Your task to perform on an android device: turn off translation in the chrome app Image 0: 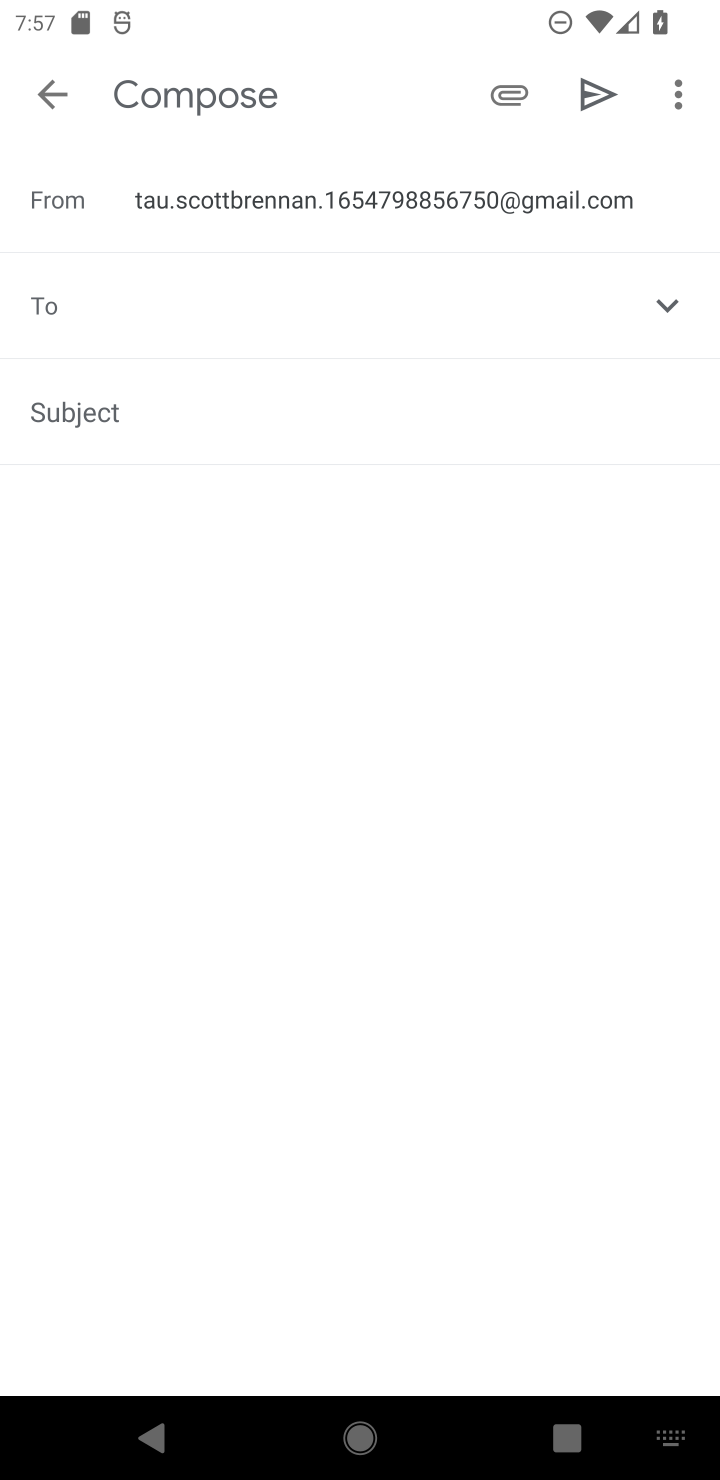
Step 0: press home button
Your task to perform on an android device: turn off translation in the chrome app Image 1: 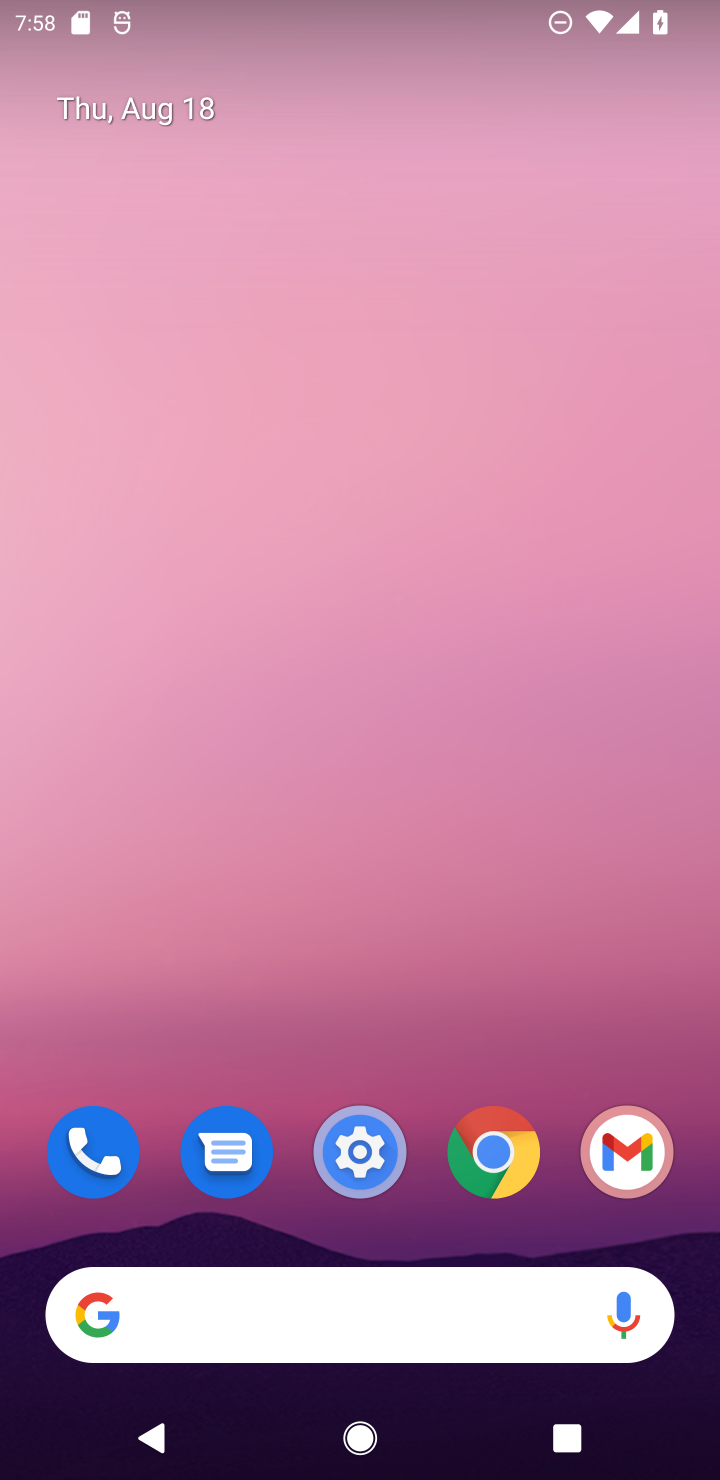
Step 1: press home button
Your task to perform on an android device: turn off translation in the chrome app Image 2: 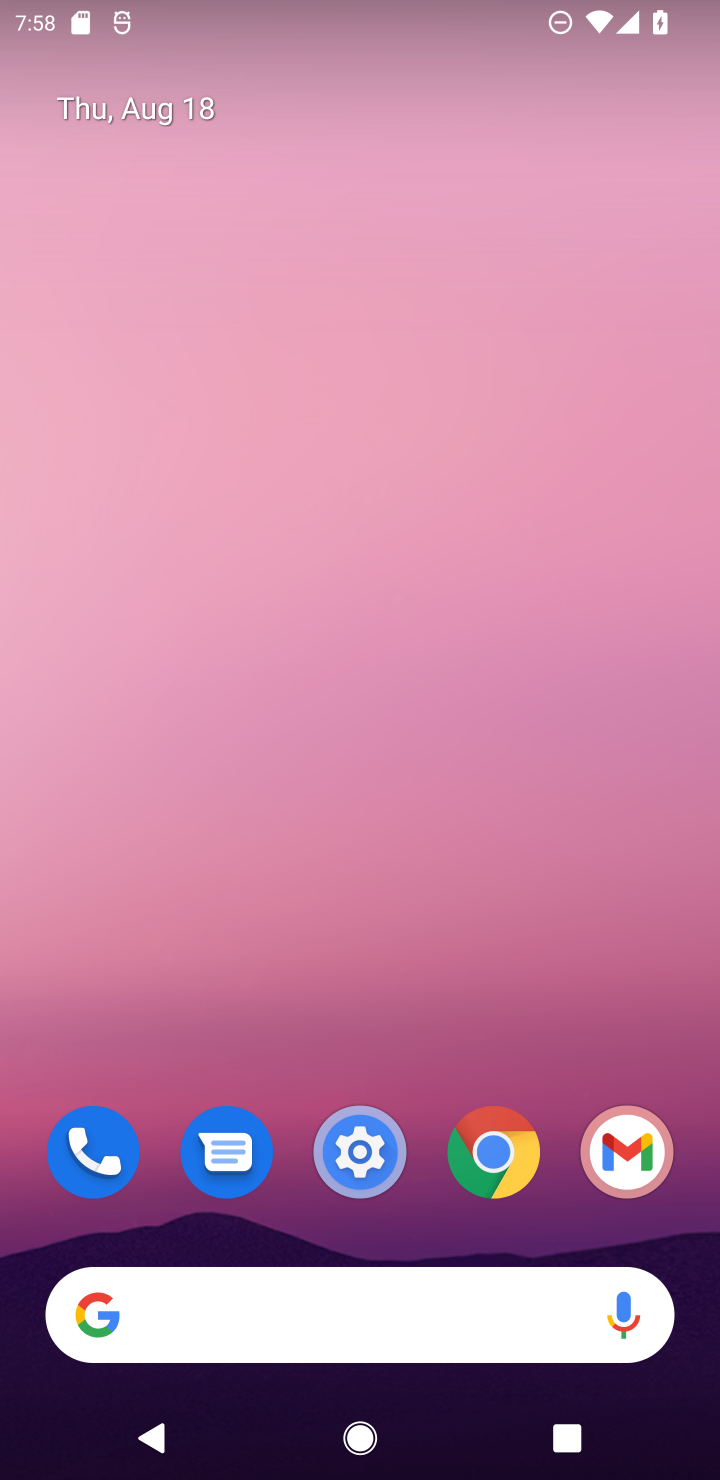
Step 2: click (488, 1147)
Your task to perform on an android device: turn off translation in the chrome app Image 3: 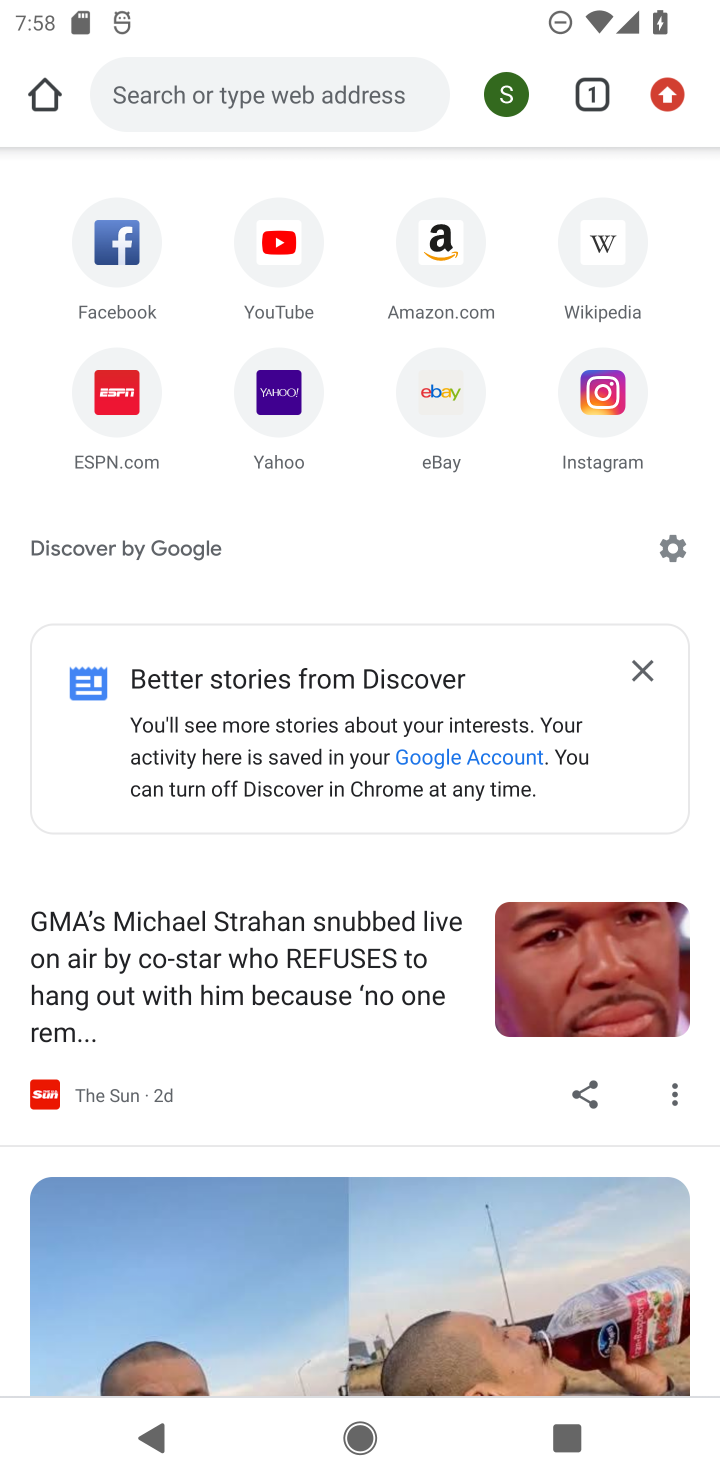
Step 3: drag from (674, 79) to (387, 984)
Your task to perform on an android device: turn off translation in the chrome app Image 4: 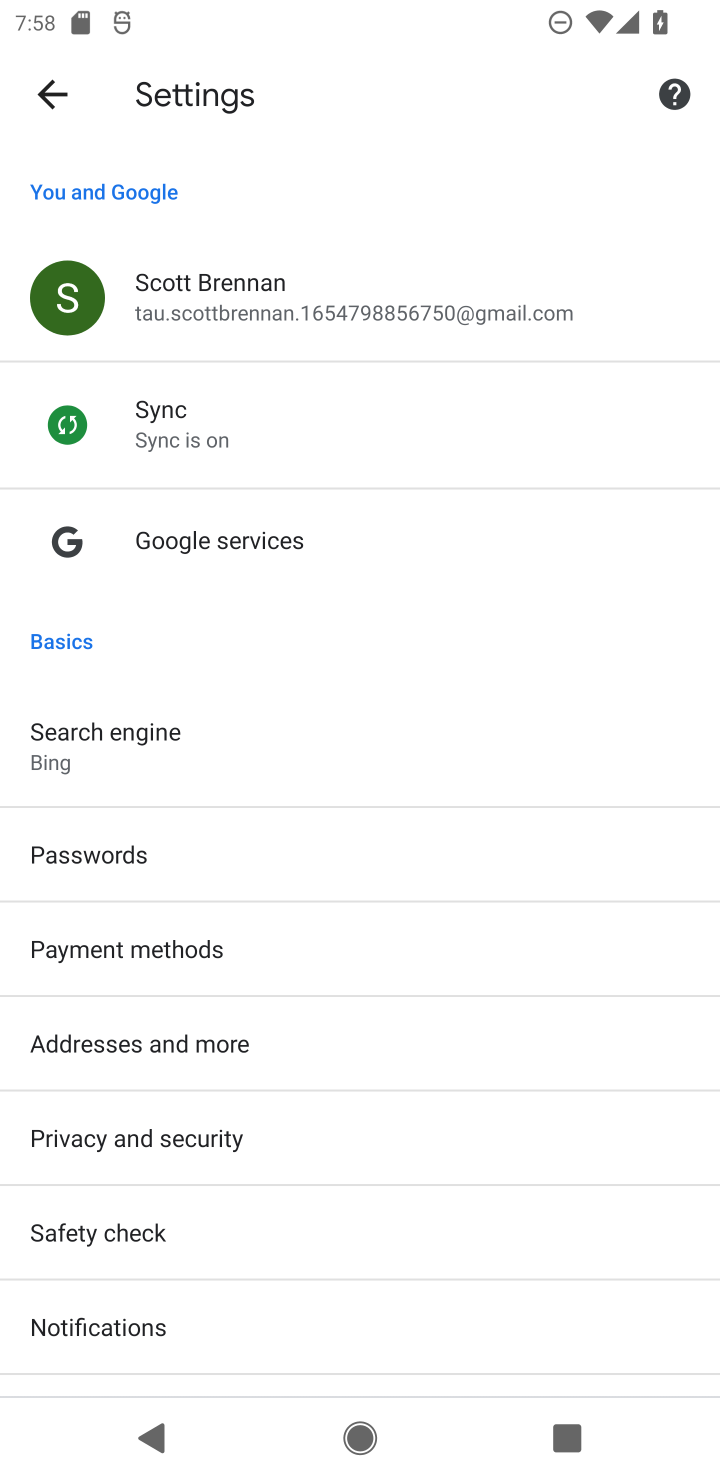
Step 4: drag from (246, 678) to (264, 260)
Your task to perform on an android device: turn off translation in the chrome app Image 5: 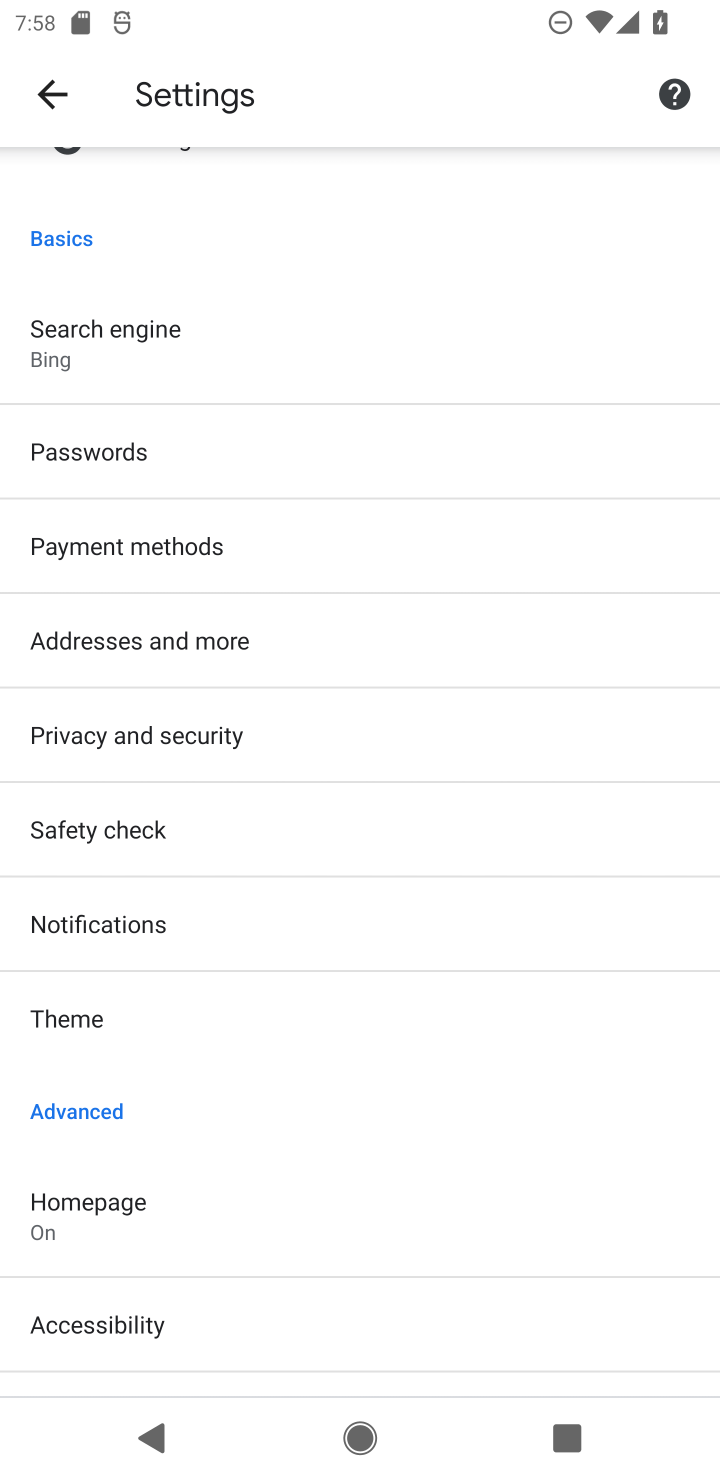
Step 5: drag from (190, 1119) to (213, 614)
Your task to perform on an android device: turn off translation in the chrome app Image 6: 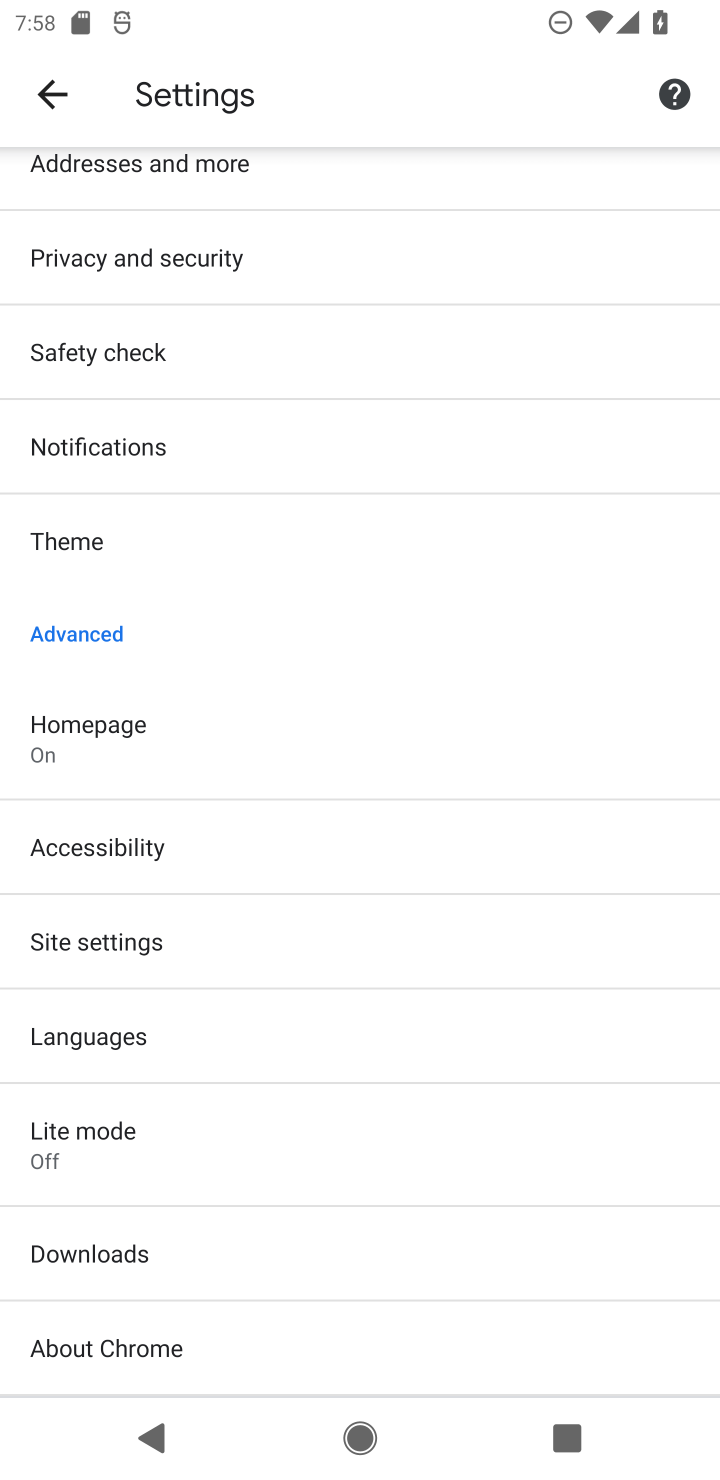
Step 6: click (122, 1051)
Your task to perform on an android device: turn off translation in the chrome app Image 7: 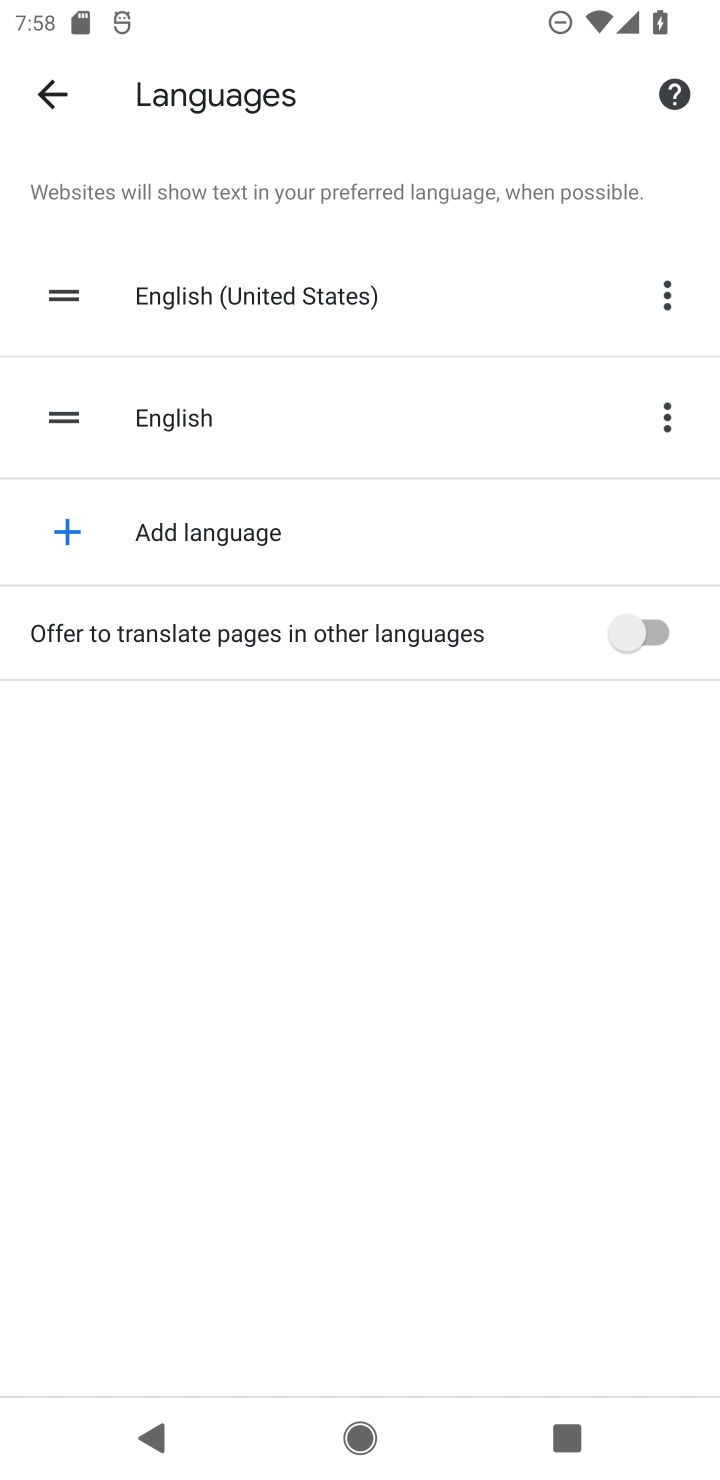
Step 7: task complete